Your task to perform on an android device: set default search engine in the chrome app Image 0: 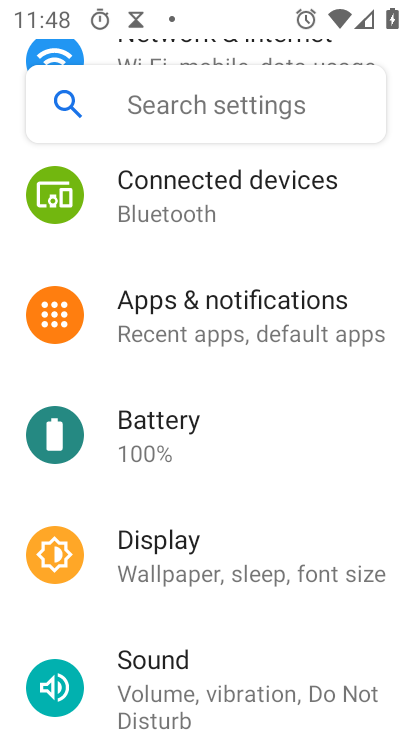
Step 0: press home button
Your task to perform on an android device: set default search engine in the chrome app Image 1: 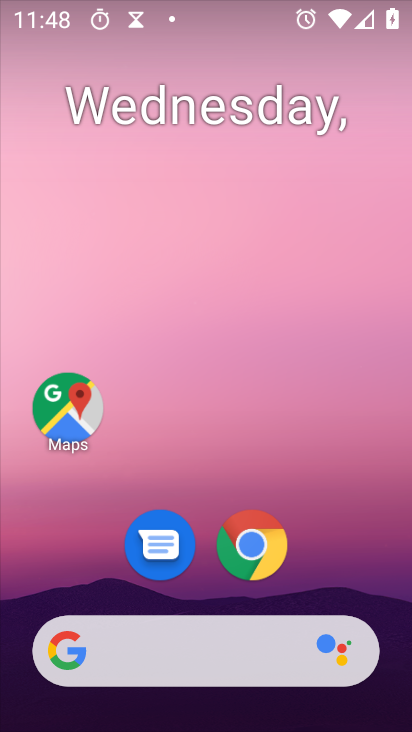
Step 1: click (254, 561)
Your task to perform on an android device: set default search engine in the chrome app Image 2: 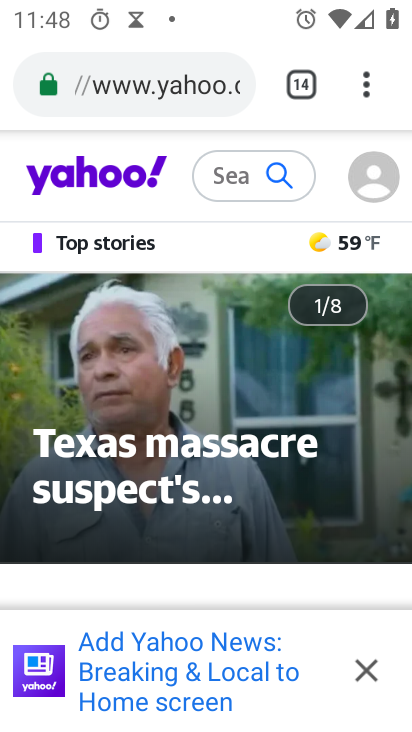
Step 2: drag from (365, 87) to (318, 592)
Your task to perform on an android device: set default search engine in the chrome app Image 3: 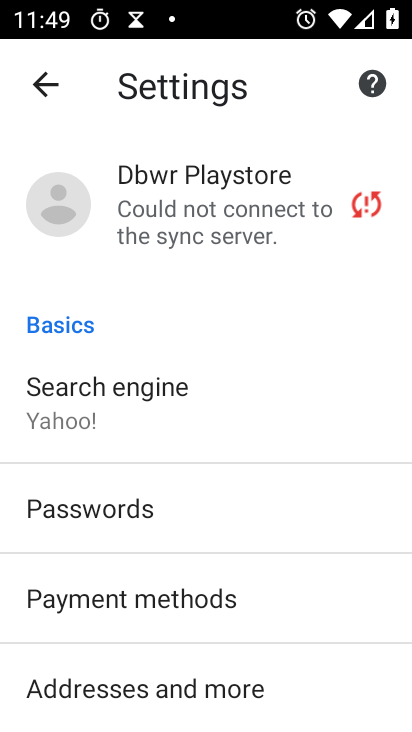
Step 3: click (100, 429)
Your task to perform on an android device: set default search engine in the chrome app Image 4: 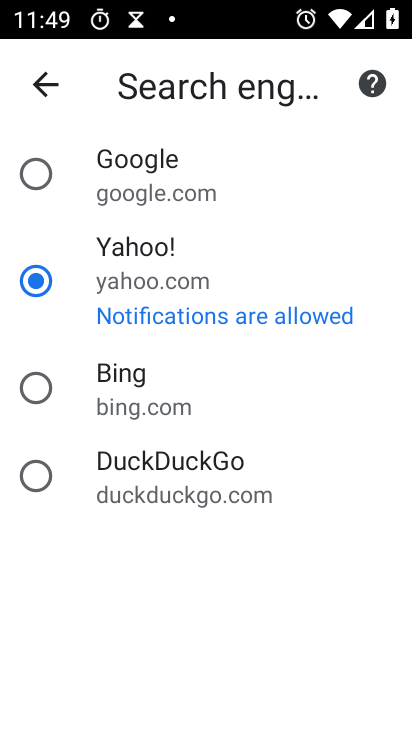
Step 4: click (41, 175)
Your task to perform on an android device: set default search engine in the chrome app Image 5: 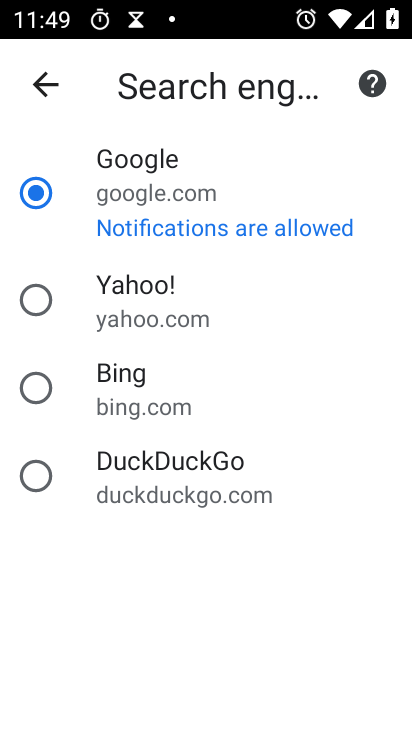
Step 5: task complete